Your task to perform on an android device: Go to Android settings Image 0: 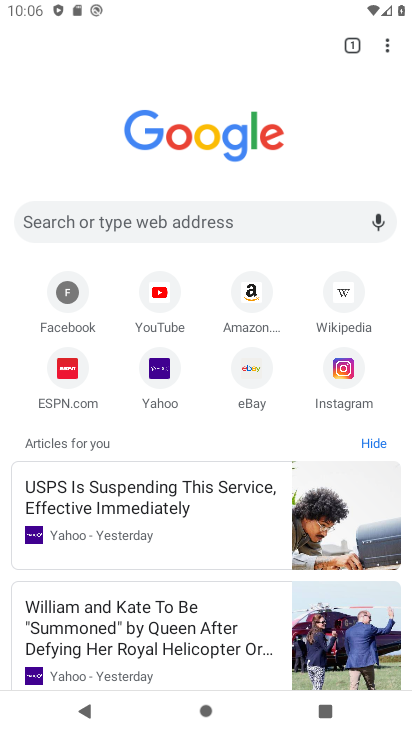
Step 0: press home button
Your task to perform on an android device: Go to Android settings Image 1: 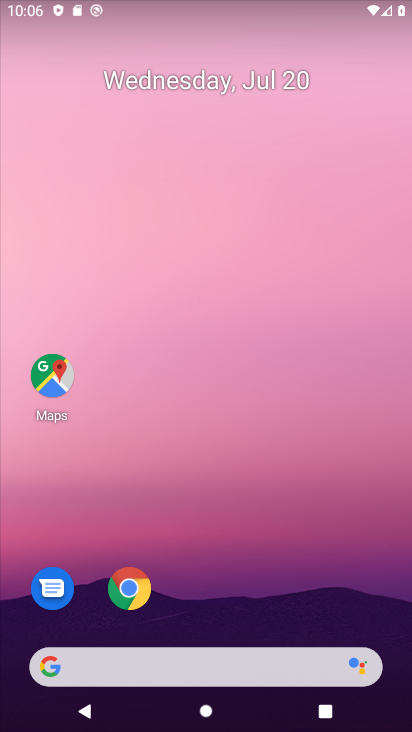
Step 1: drag from (219, 623) to (202, 86)
Your task to perform on an android device: Go to Android settings Image 2: 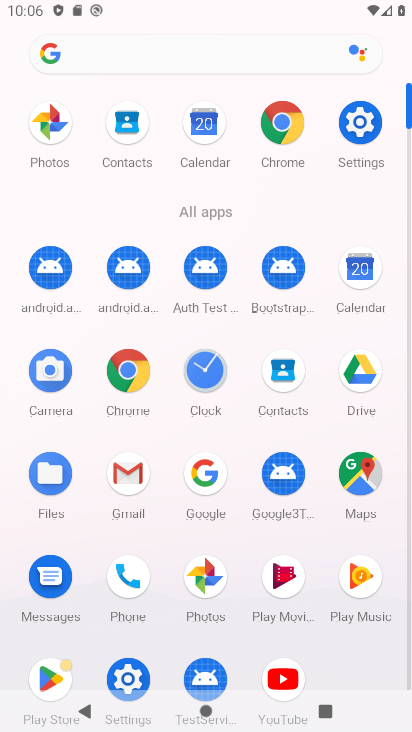
Step 2: click (126, 674)
Your task to perform on an android device: Go to Android settings Image 3: 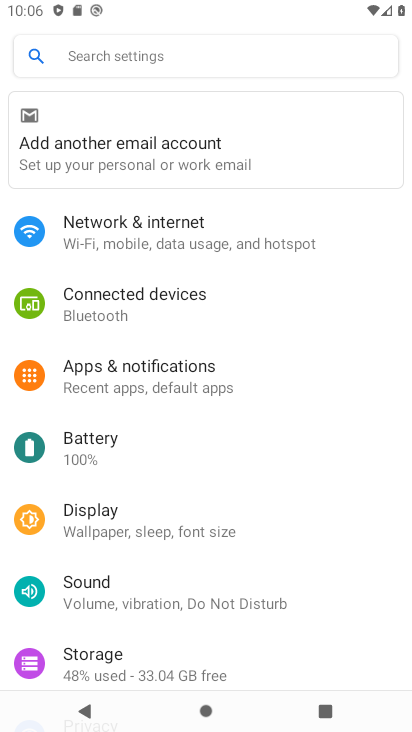
Step 3: drag from (163, 575) to (172, 156)
Your task to perform on an android device: Go to Android settings Image 4: 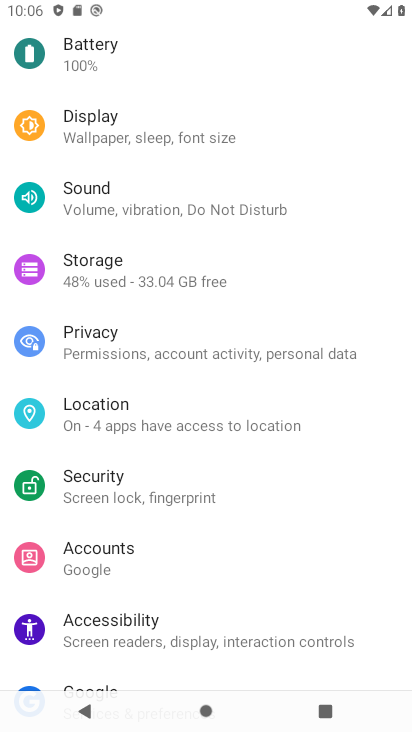
Step 4: drag from (150, 606) to (159, 202)
Your task to perform on an android device: Go to Android settings Image 5: 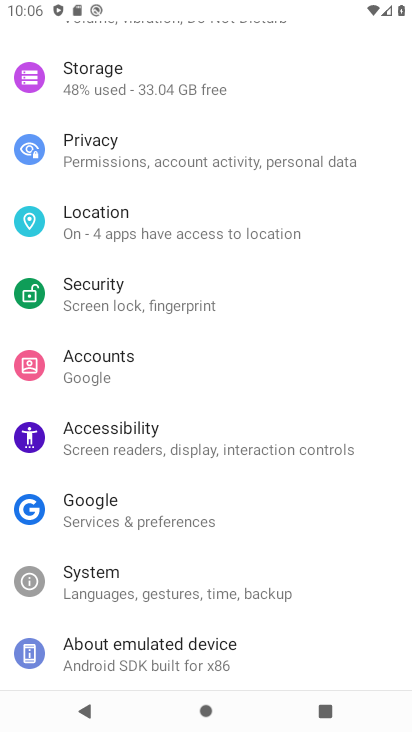
Step 5: click (130, 646)
Your task to perform on an android device: Go to Android settings Image 6: 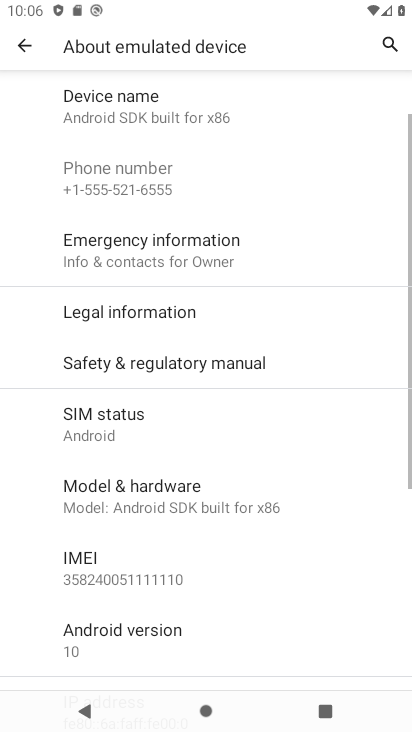
Step 6: click (119, 641)
Your task to perform on an android device: Go to Android settings Image 7: 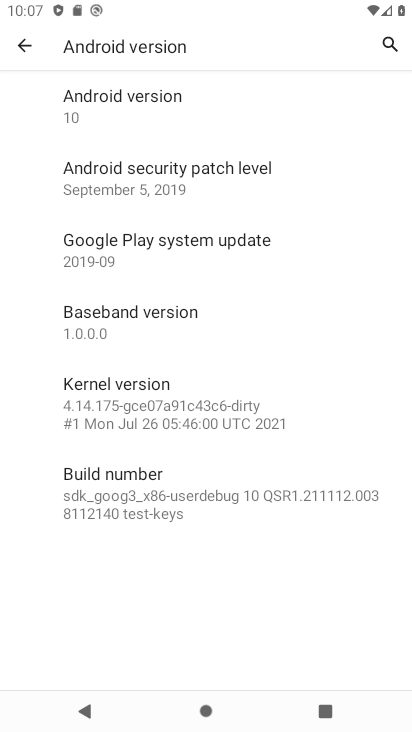
Step 7: task complete